Your task to perform on an android device: toggle translation in the chrome app Image 0: 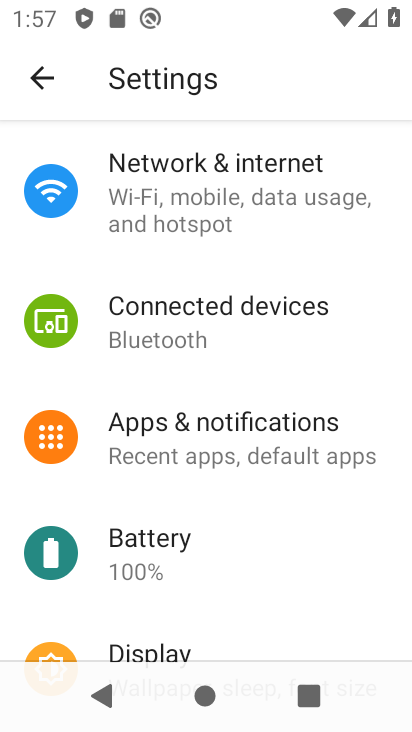
Step 0: press home button
Your task to perform on an android device: toggle translation in the chrome app Image 1: 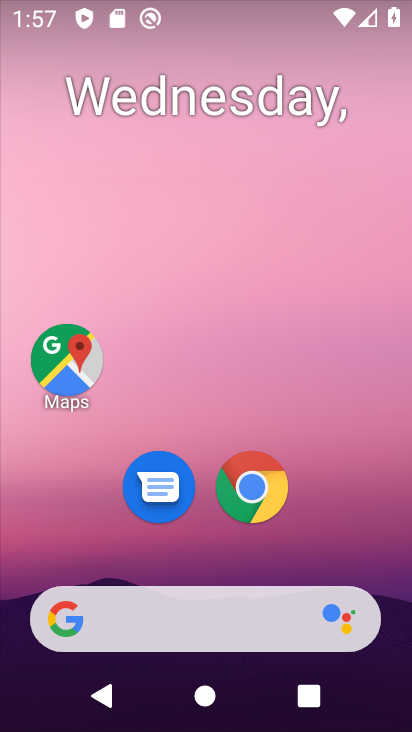
Step 1: click (249, 500)
Your task to perform on an android device: toggle translation in the chrome app Image 2: 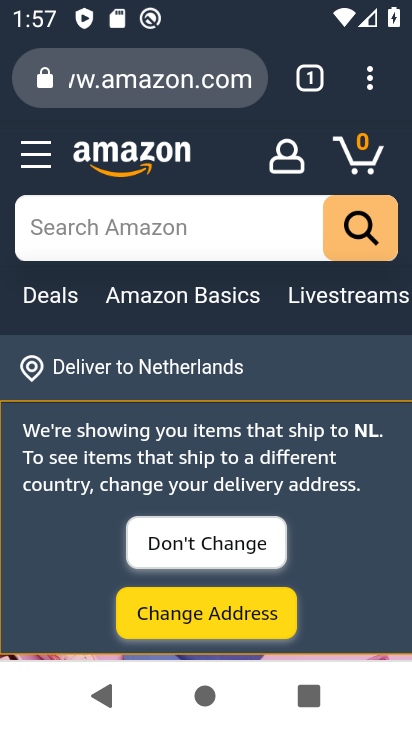
Step 2: click (368, 89)
Your task to perform on an android device: toggle translation in the chrome app Image 3: 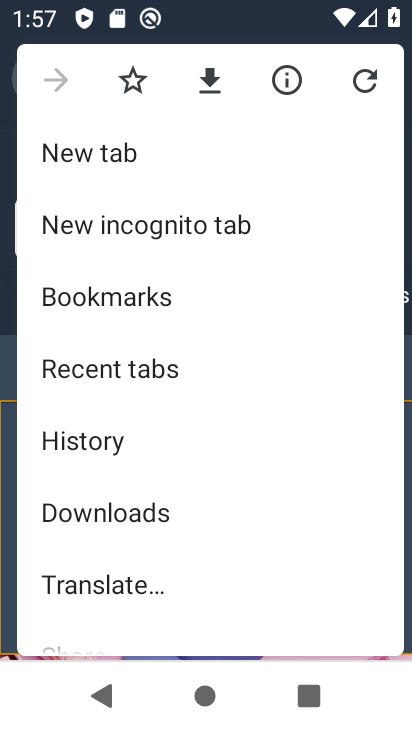
Step 3: drag from (149, 540) to (209, 258)
Your task to perform on an android device: toggle translation in the chrome app Image 4: 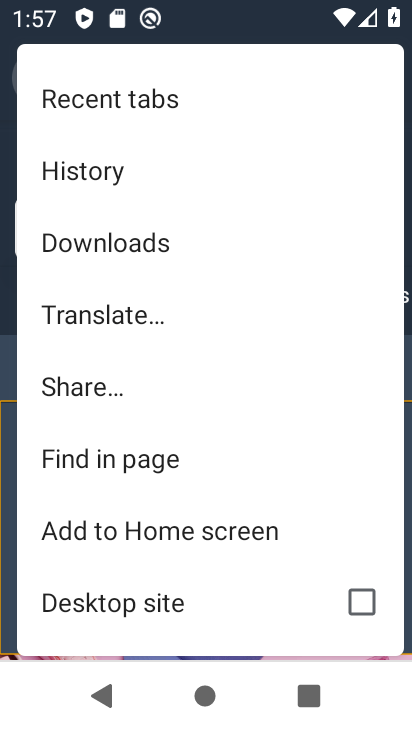
Step 4: drag from (146, 556) to (217, 147)
Your task to perform on an android device: toggle translation in the chrome app Image 5: 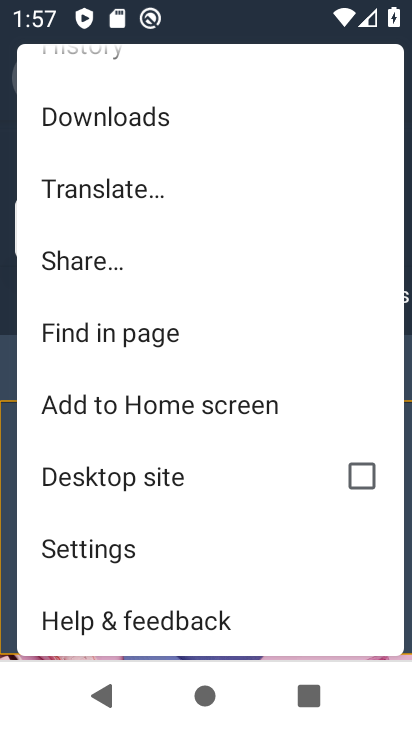
Step 5: click (105, 550)
Your task to perform on an android device: toggle translation in the chrome app Image 6: 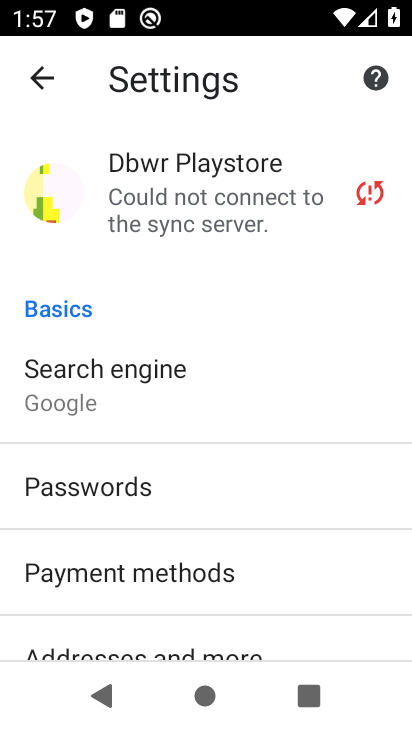
Step 6: drag from (126, 575) to (210, 213)
Your task to perform on an android device: toggle translation in the chrome app Image 7: 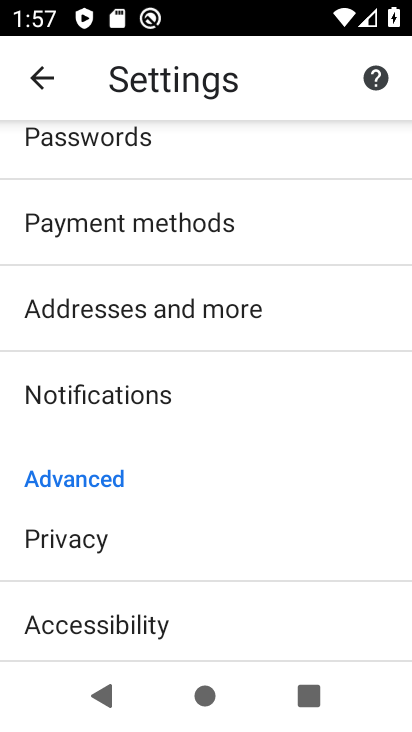
Step 7: drag from (153, 529) to (223, 146)
Your task to perform on an android device: toggle translation in the chrome app Image 8: 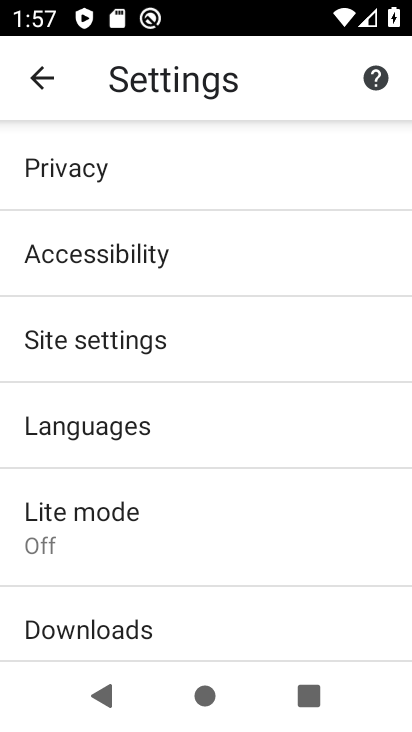
Step 8: click (138, 439)
Your task to perform on an android device: toggle translation in the chrome app Image 9: 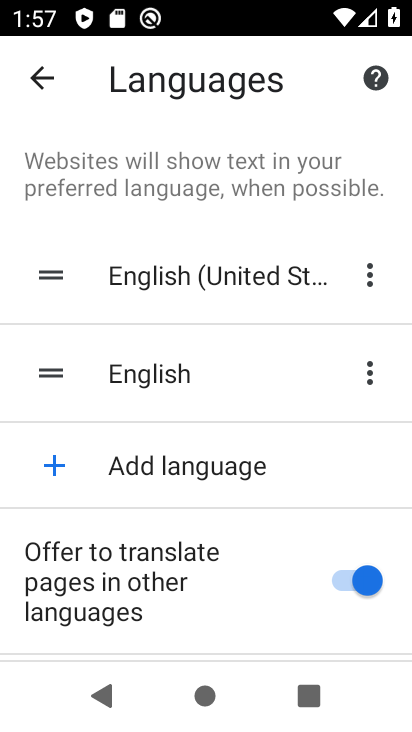
Step 9: click (348, 577)
Your task to perform on an android device: toggle translation in the chrome app Image 10: 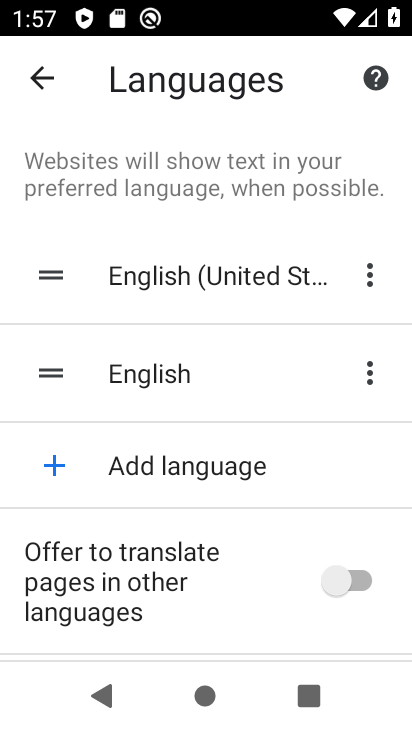
Step 10: task complete